Your task to perform on an android device: turn off location Image 0: 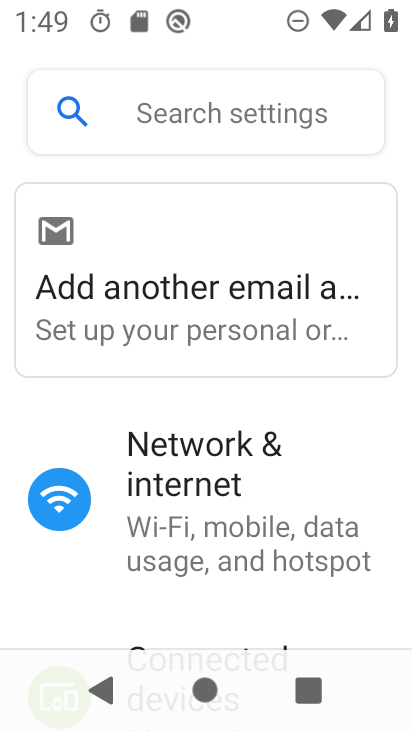
Step 0: press home button
Your task to perform on an android device: turn off location Image 1: 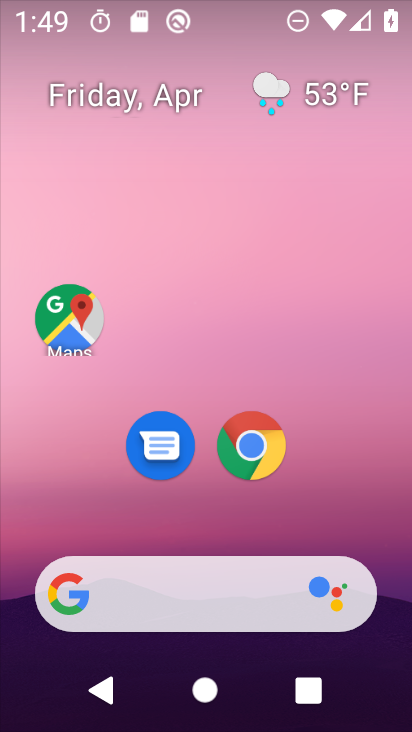
Step 1: drag from (364, 528) to (374, 81)
Your task to perform on an android device: turn off location Image 2: 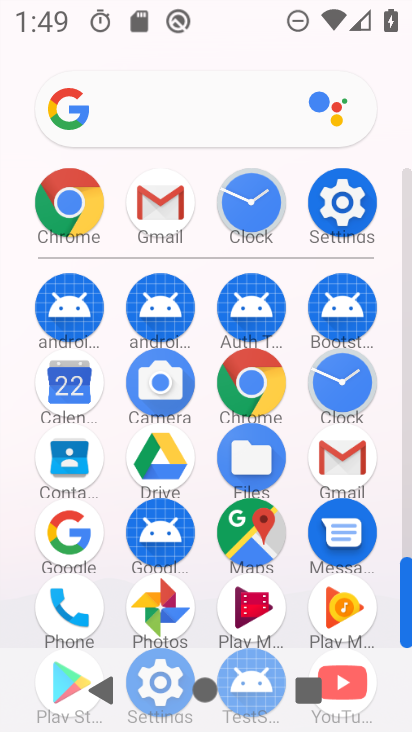
Step 2: click (333, 199)
Your task to perform on an android device: turn off location Image 3: 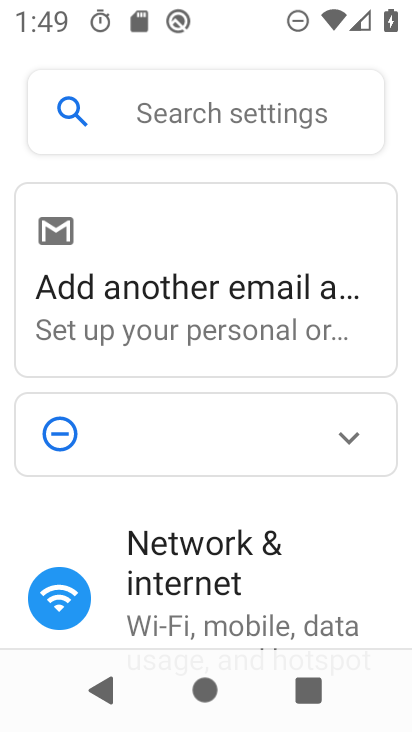
Step 3: drag from (375, 562) to (375, 388)
Your task to perform on an android device: turn off location Image 4: 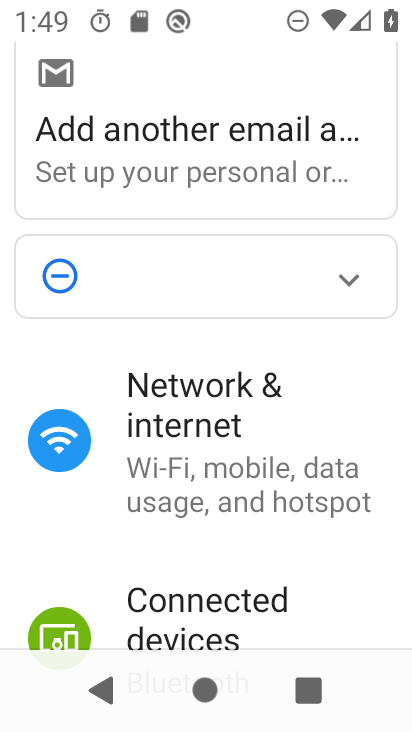
Step 4: drag from (366, 585) to (374, 402)
Your task to perform on an android device: turn off location Image 5: 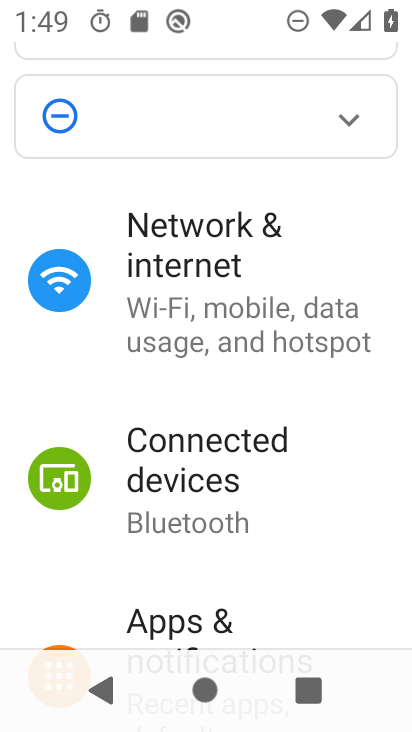
Step 5: drag from (347, 575) to (349, 345)
Your task to perform on an android device: turn off location Image 6: 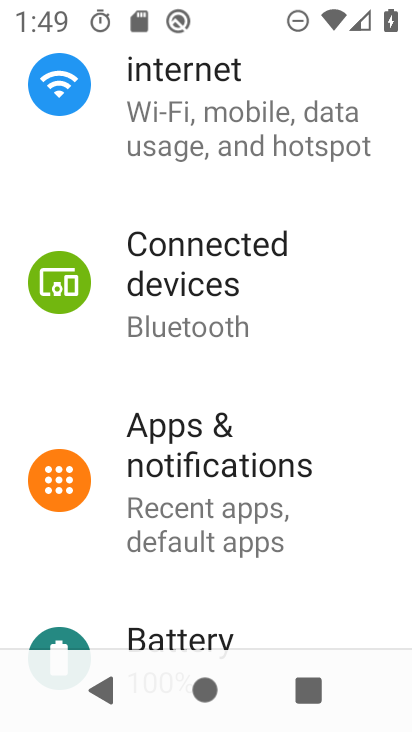
Step 6: drag from (348, 568) to (352, 370)
Your task to perform on an android device: turn off location Image 7: 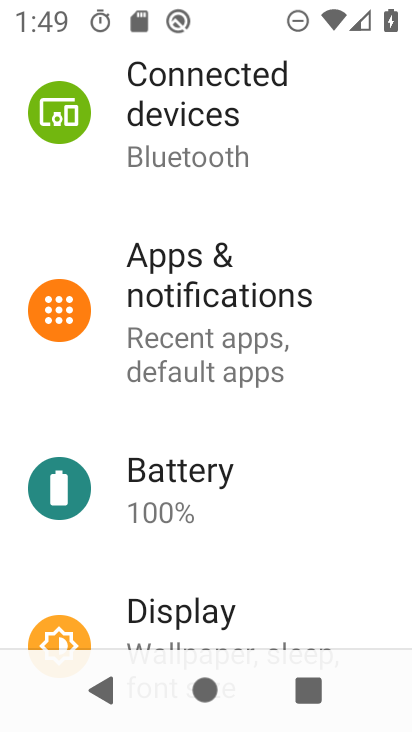
Step 7: drag from (340, 573) to (350, 381)
Your task to perform on an android device: turn off location Image 8: 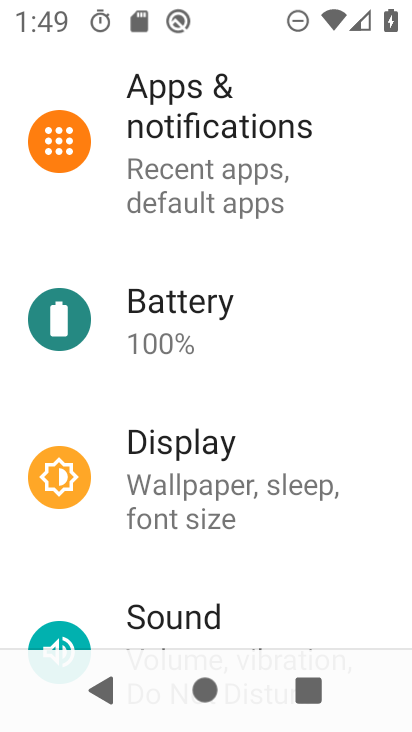
Step 8: drag from (362, 576) to (359, 398)
Your task to perform on an android device: turn off location Image 9: 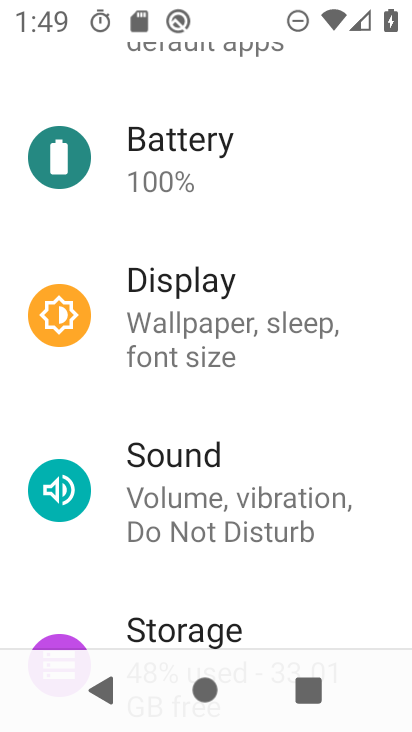
Step 9: drag from (339, 596) to (357, 421)
Your task to perform on an android device: turn off location Image 10: 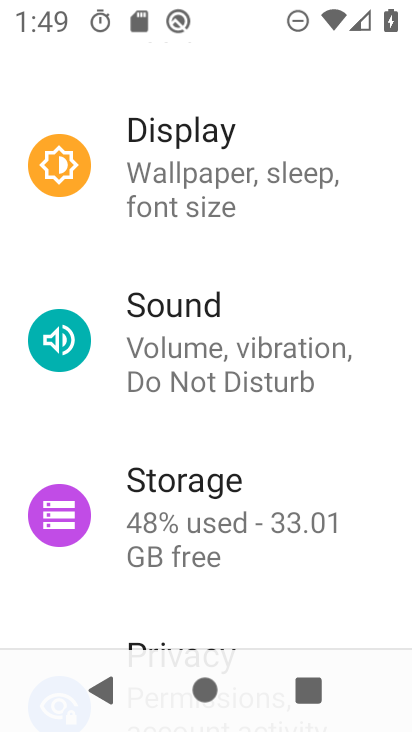
Step 10: drag from (356, 587) to (362, 369)
Your task to perform on an android device: turn off location Image 11: 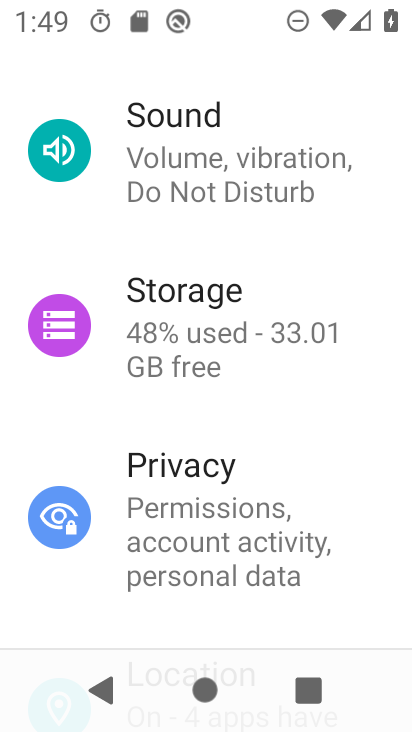
Step 11: drag from (361, 584) to (367, 352)
Your task to perform on an android device: turn off location Image 12: 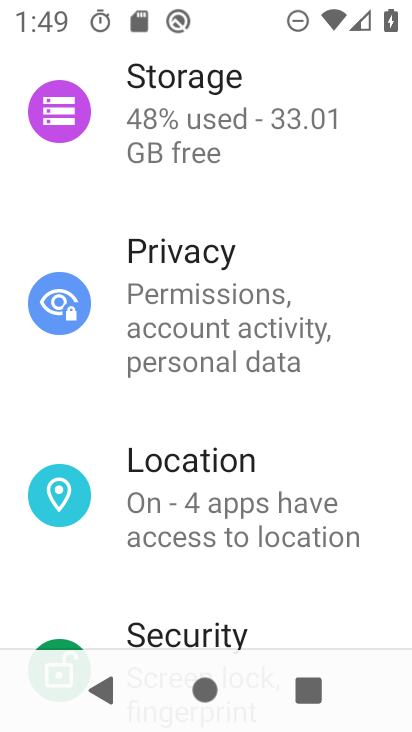
Step 12: click (246, 517)
Your task to perform on an android device: turn off location Image 13: 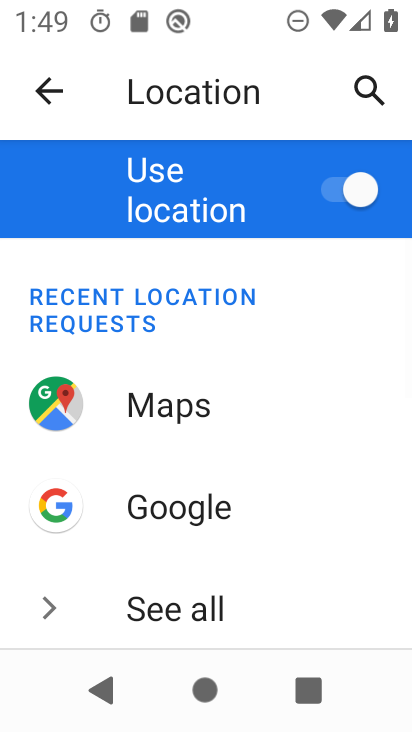
Step 13: click (354, 187)
Your task to perform on an android device: turn off location Image 14: 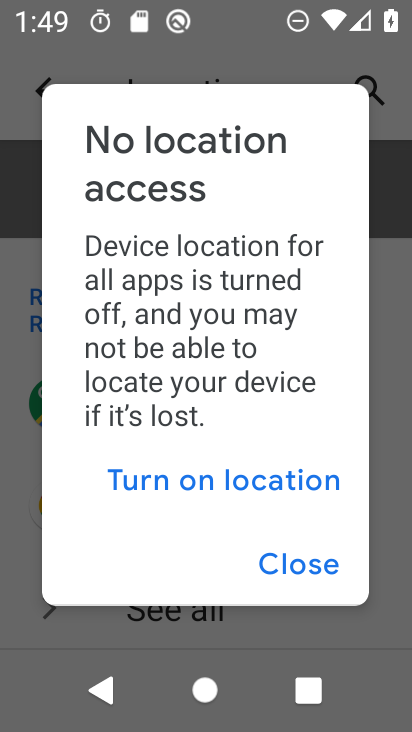
Step 14: task complete